Your task to perform on an android device: read, delete, or share a saved page in the chrome app Image 0: 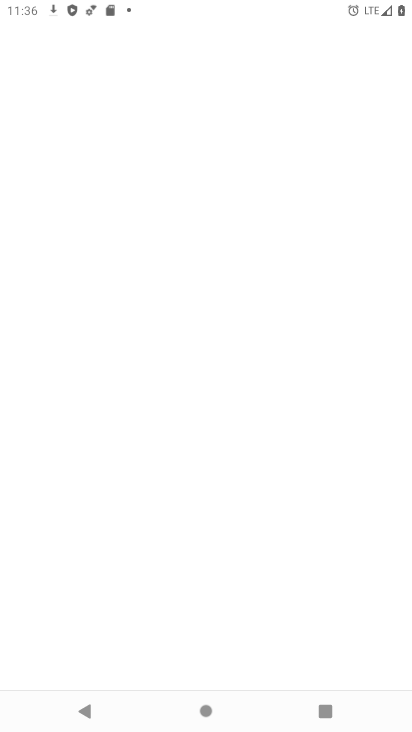
Step 0: press home button
Your task to perform on an android device: read, delete, or share a saved page in the chrome app Image 1: 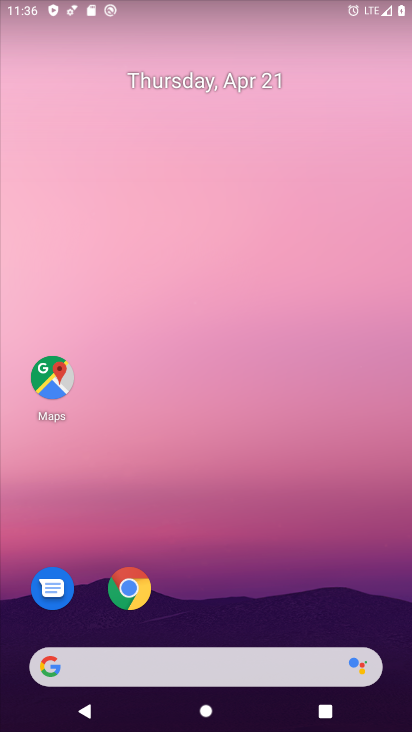
Step 1: drag from (299, 690) to (263, 293)
Your task to perform on an android device: read, delete, or share a saved page in the chrome app Image 2: 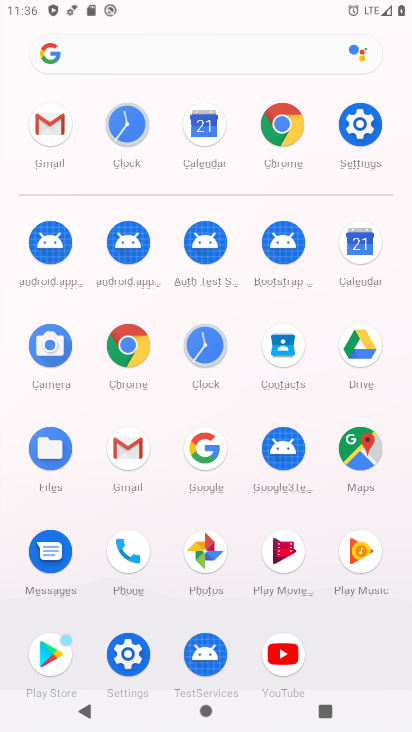
Step 2: click (283, 123)
Your task to perform on an android device: read, delete, or share a saved page in the chrome app Image 3: 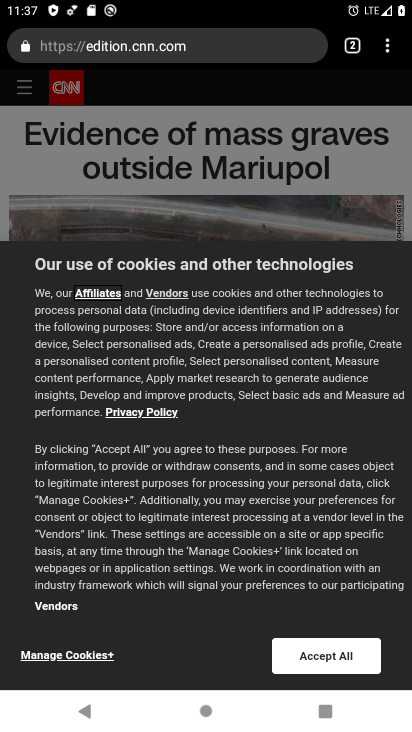
Step 3: click (383, 57)
Your task to perform on an android device: read, delete, or share a saved page in the chrome app Image 4: 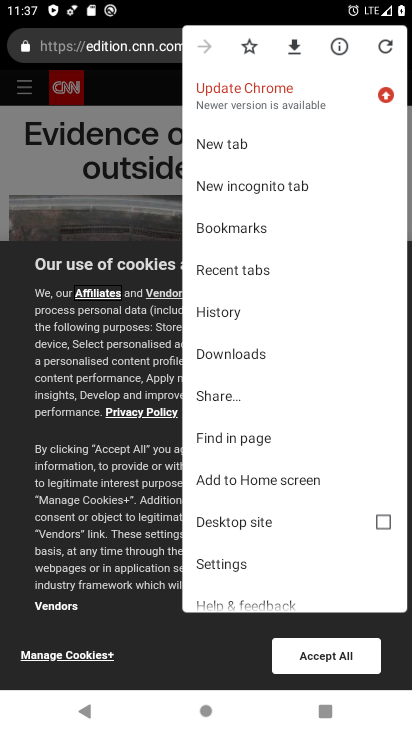
Step 4: click (236, 389)
Your task to perform on an android device: read, delete, or share a saved page in the chrome app Image 5: 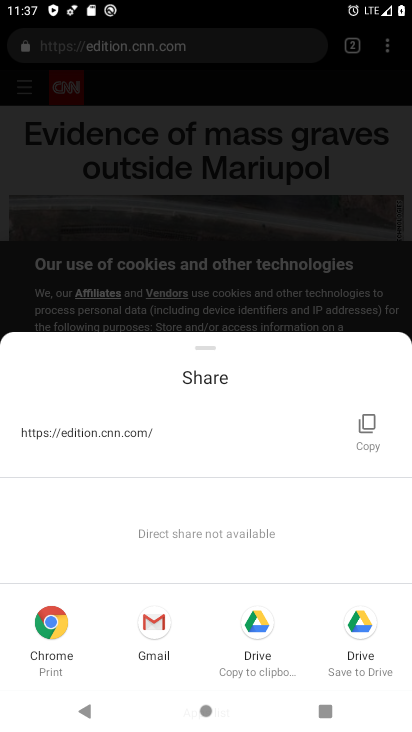
Step 5: click (67, 615)
Your task to perform on an android device: read, delete, or share a saved page in the chrome app Image 6: 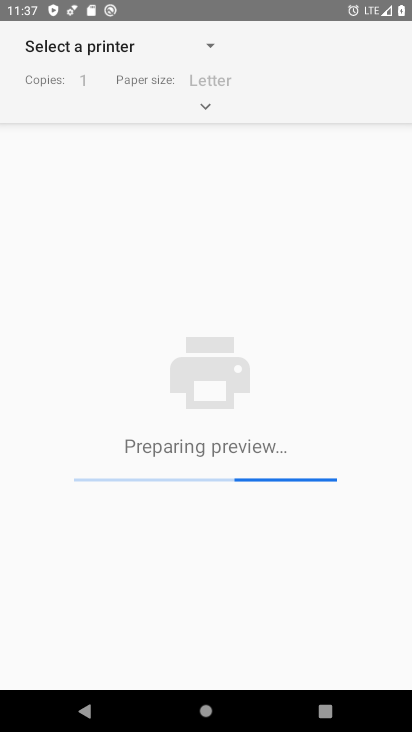
Step 6: task complete